Your task to perform on an android device: Open Google Chrome and open the bookmarks view Image 0: 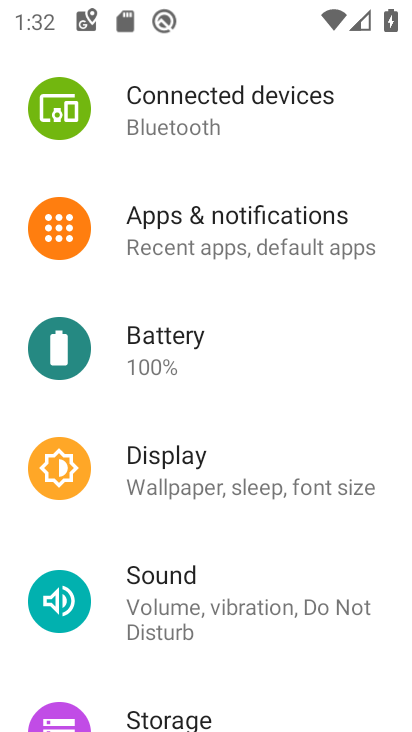
Step 0: press home button
Your task to perform on an android device: Open Google Chrome and open the bookmarks view Image 1: 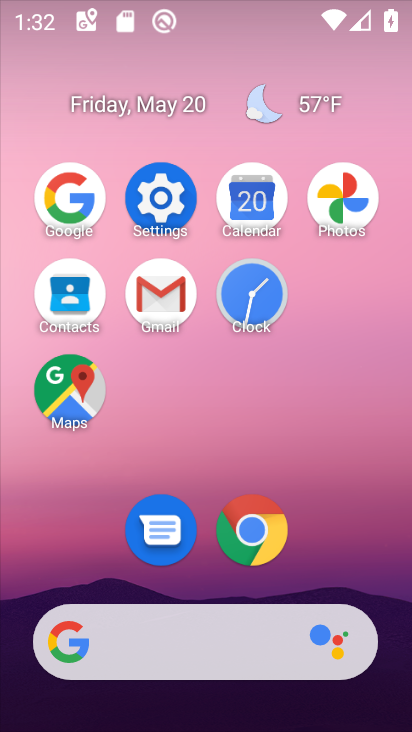
Step 1: click (283, 517)
Your task to perform on an android device: Open Google Chrome and open the bookmarks view Image 2: 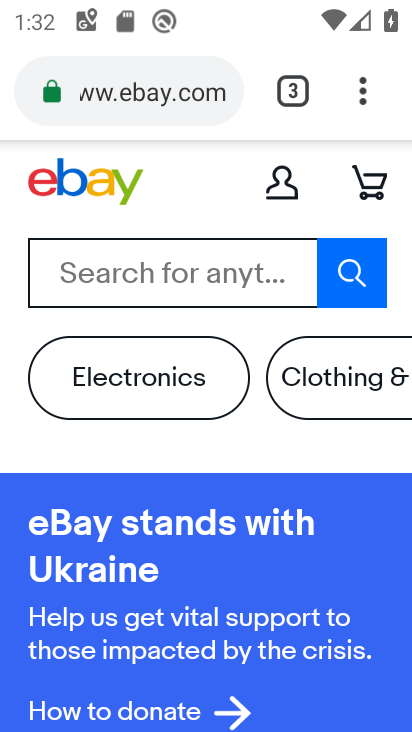
Step 2: click (348, 98)
Your task to perform on an android device: Open Google Chrome and open the bookmarks view Image 3: 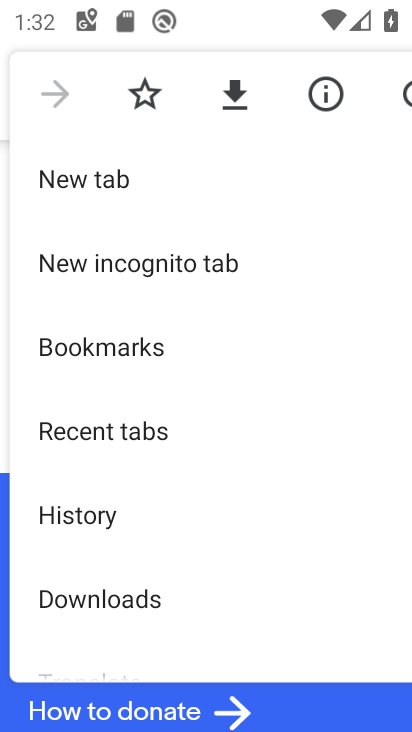
Step 3: click (234, 365)
Your task to perform on an android device: Open Google Chrome and open the bookmarks view Image 4: 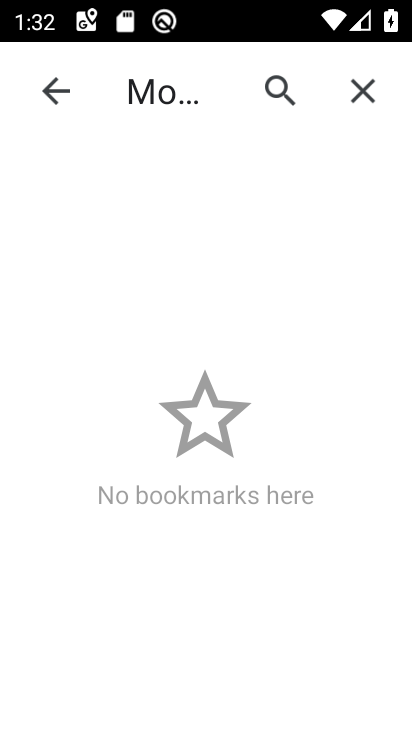
Step 4: task complete